Your task to perform on an android device: Clear the shopping cart on target.com. Image 0: 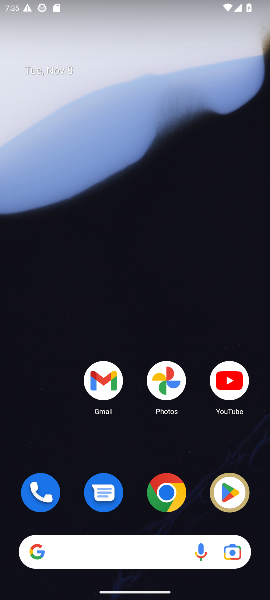
Step 0: click (171, 505)
Your task to perform on an android device: Clear the shopping cart on target.com. Image 1: 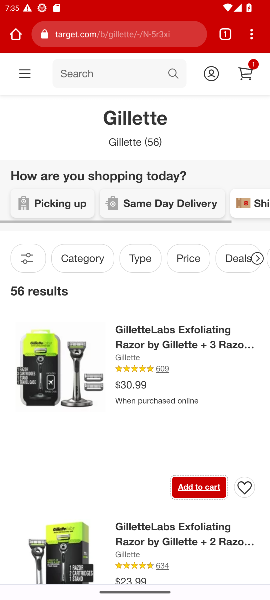
Step 1: click (94, 38)
Your task to perform on an android device: Clear the shopping cart on target.com. Image 2: 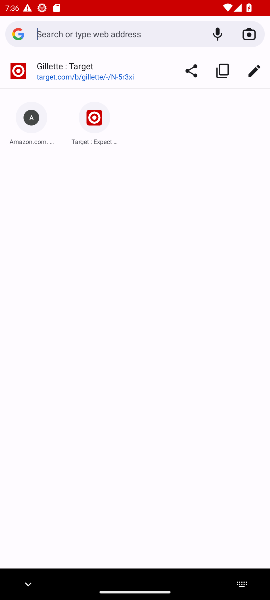
Step 2: type "target.com"
Your task to perform on an android device: Clear the shopping cart on target.com. Image 3: 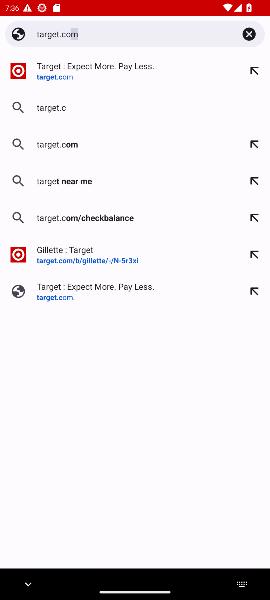
Step 3: press enter
Your task to perform on an android device: Clear the shopping cart on target.com. Image 4: 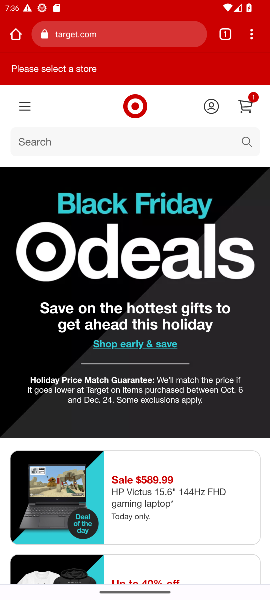
Step 4: click (157, 227)
Your task to perform on an android device: Clear the shopping cart on target.com. Image 5: 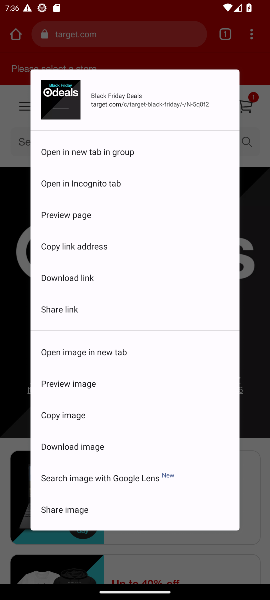
Step 5: click (267, 182)
Your task to perform on an android device: Clear the shopping cart on target.com. Image 6: 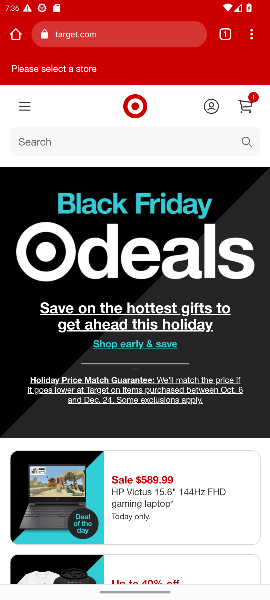
Step 6: click (243, 106)
Your task to perform on an android device: Clear the shopping cart on target.com. Image 7: 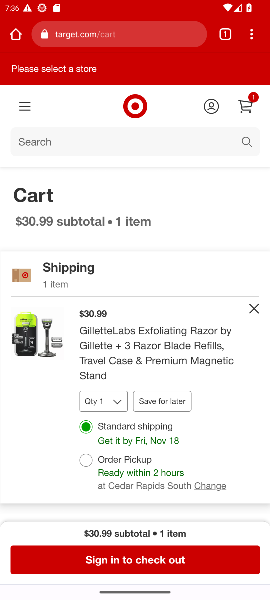
Step 7: click (252, 312)
Your task to perform on an android device: Clear the shopping cart on target.com. Image 8: 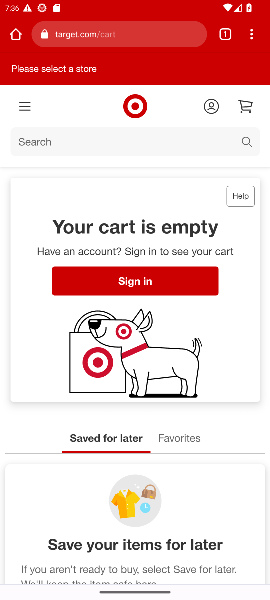
Step 8: click (85, 44)
Your task to perform on an android device: Clear the shopping cart on target.com. Image 9: 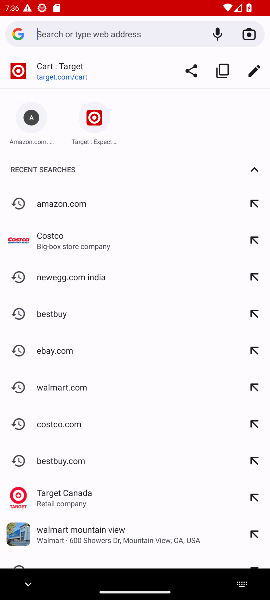
Step 9: type "target.com"
Your task to perform on an android device: Clear the shopping cart on target.com. Image 10: 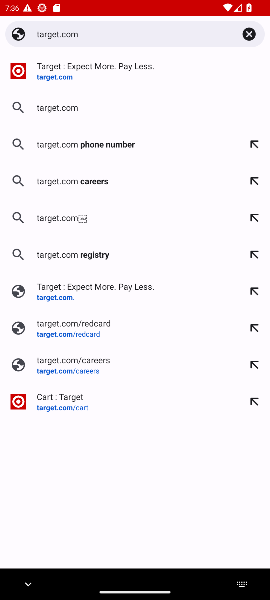
Step 10: press enter
Your task to perform on an android device: Clear the shopping cart on target.com. Image 11: 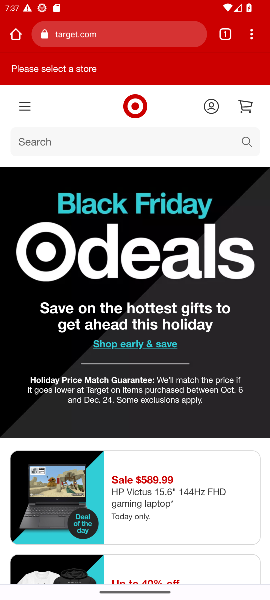
Step 11: click (252, 111)
Your task to perform on an android device: Clear the shopping cart on target.com. Image 12: 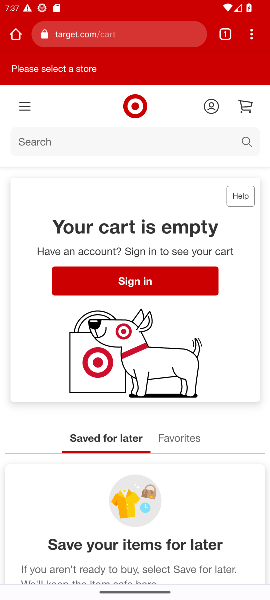
Step 12: task complete